Your task to perform on an android device: turn off location Image 0: 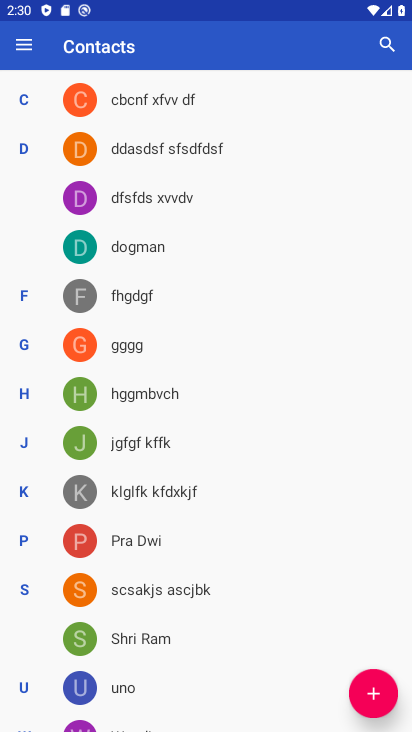
Step 0: press home button
Your task to perform on an android device: turn off location Image 1: 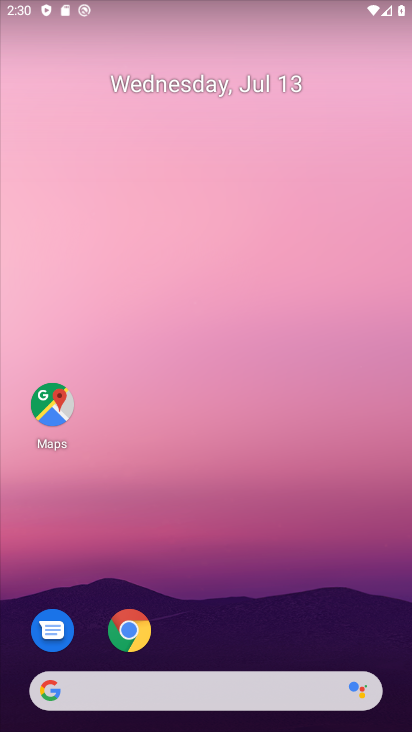
Step 1: drag from (285, 626) to (237, 116)
Your task to perform on an android device: turn off location Image 2: 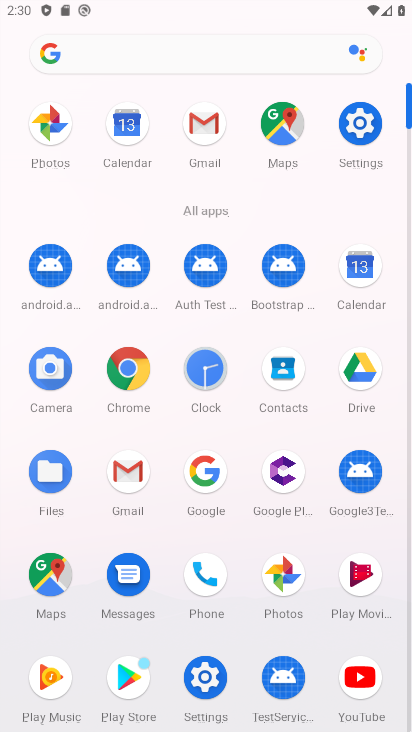
Step 2: click (345, 128)
Your task to perform on an android device: turn off location Image 3: 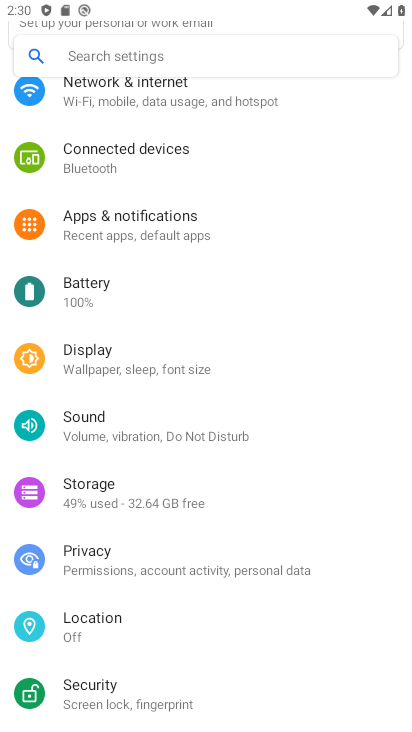
Step 3: click (245, 634)
Your task to perform on an android device: turn off location Image 4: 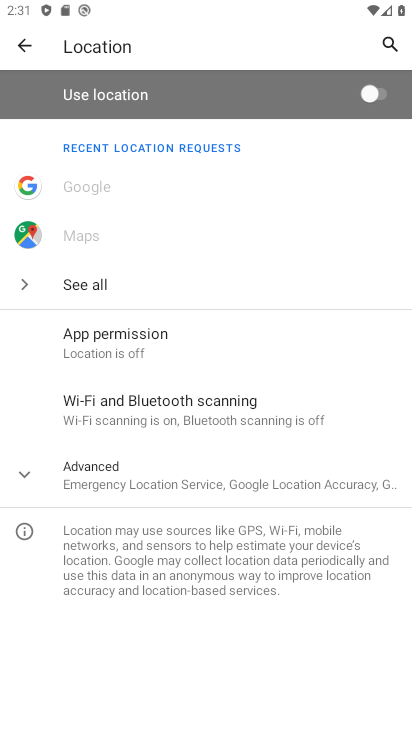
Step 4: task complete